Your task to perform on an android device: Clear the shopping cart on costco. Add "acer nitro" to the cart on costco Image 0: 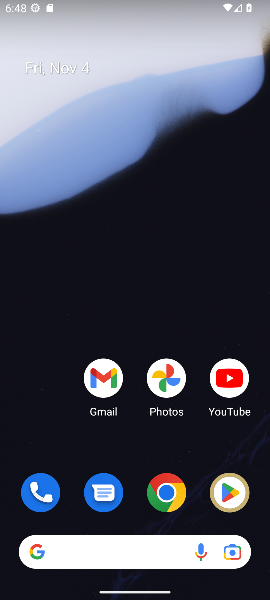
Step 0: drag from (143, 448) to (112, 10)
Your task to perform on an android device: Clear the shopping cart on costco. Add "acer nitro" to the cart on costco Image 1: 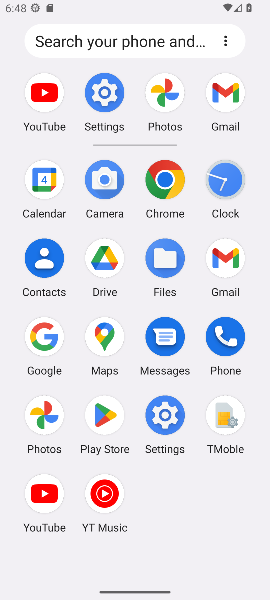
Step 1: click (167, 182)
Your task to perform on an android device: Clear the shopping cart on costco. Add "acer nitro" to the cart on costco Image 2: 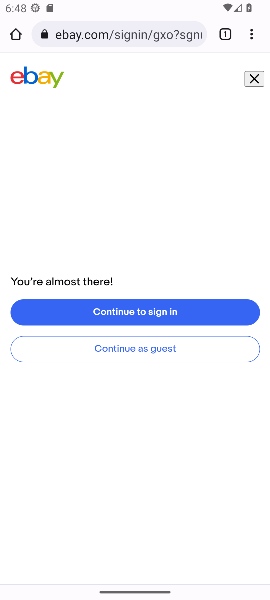
Step 2: click (133, 33)
Your task to perform on an android device: Clear the shopping cart on costco. Add "acer nitro" to the cart on costco Image 3: 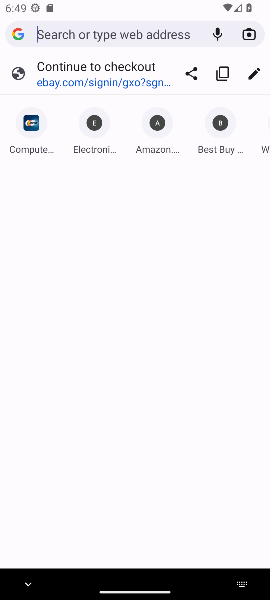
Step 3: type "costco.com"
Your task to perform on an android device: Clear the shopping cart on costco. Add "acer nitro" to the cart on costco Image 4: 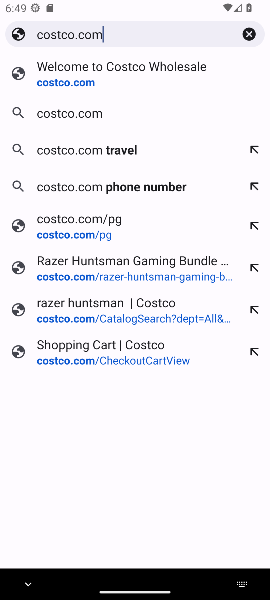
Step 4: press enter
Your task to perform on an android device: Clear the shopping cart on costco. Add "acer nitro" to the cart on costco Image 5: 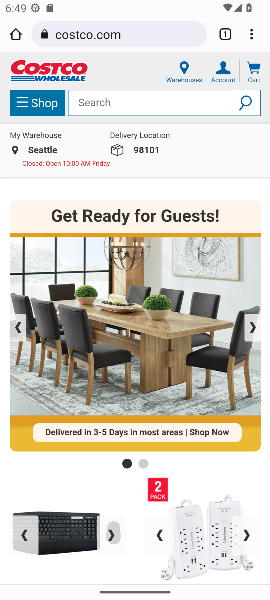
Step 5: click (251, 66)
Your task to perform on an android device: Clear the shopping cart on costco. Add "acer nitro" to the cart on costco Image 6: 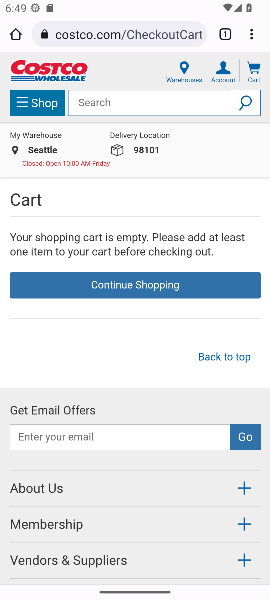
Step 6: click (180, 105)
Your task to perform on an android device: Clear the shopping cart on costco. Add "acer nitro" to the cart on costco Image 7: 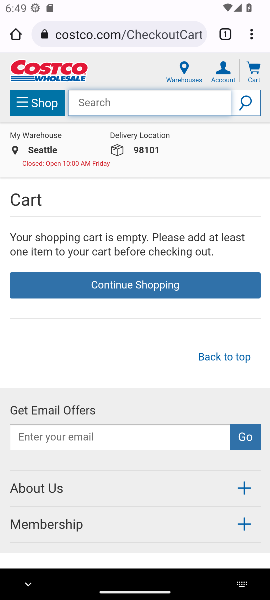
Step 7: type "acer nitro"
Your task to perform on an android device: Clear the shopping cart on costco. Add "acer nitro" to the cart on costco Image 8: 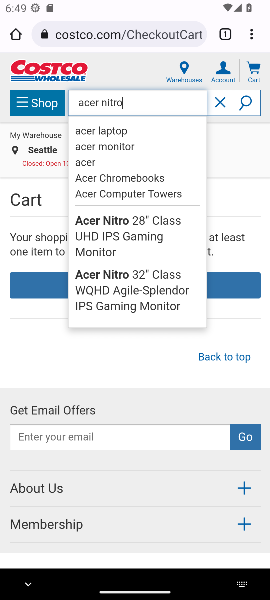
Step 8: press enter
Your task to perform on an android device: Clear the shopping cart on costco. Add "acer nitro" to the cart on costco Image 9: 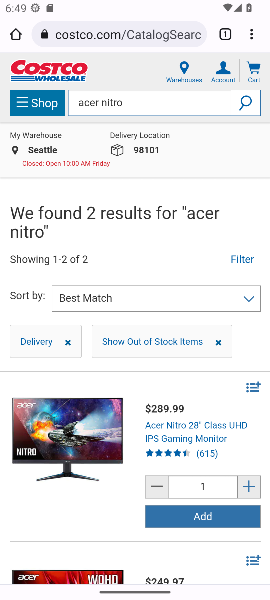
Step 9: drag from (189, 385) to (191, 171)
Your task to perform on an android device: Clear the shopping cart on costco. Add "acer nitro" to the cart on costco Image 10: 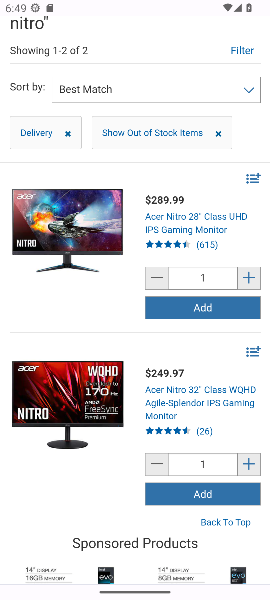
Step 10: click (222, 308)
Your task to perform on an android device: Clear the shopping cart on costco. Add "acer nitro" to the cart on costco Image 11: 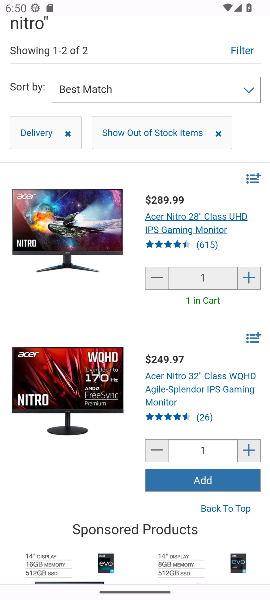
Step 11: task complete